Your task to perform on an android device: Open the stopwatch Image 0: 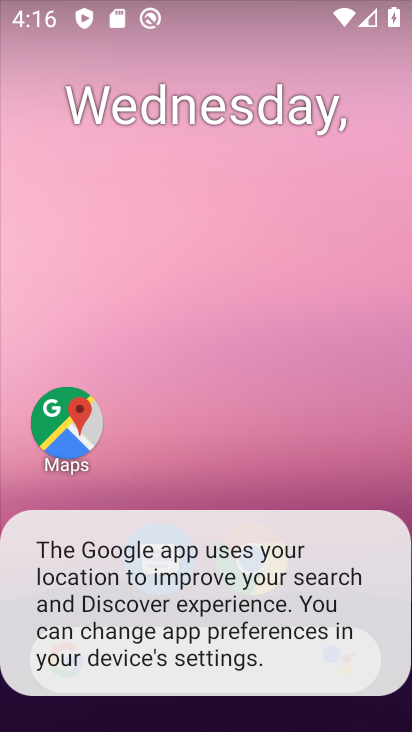
Step 0: click (267, 342)
Your task to perform on an android device: Open the stopwatch Image 1: 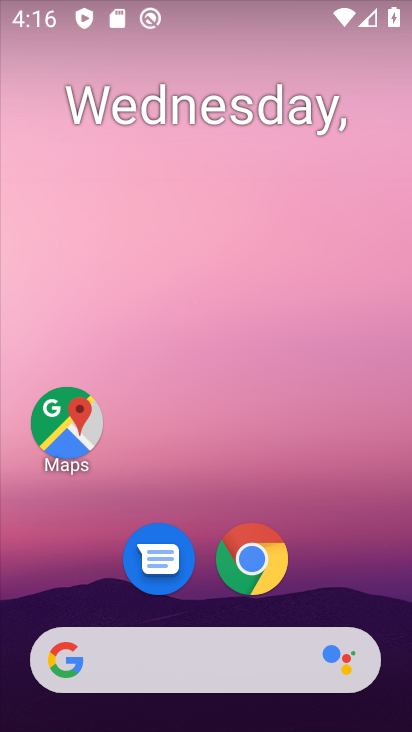
Step 1: drag from (200, 381) to (252, 65)
Your task to perform on an android device: Open the stopwatch Image 2: 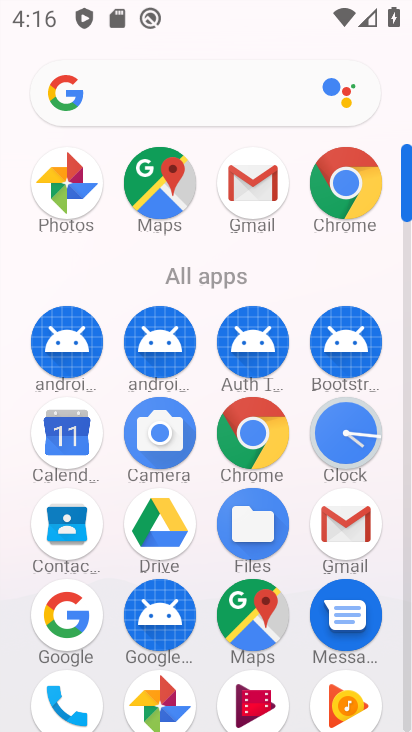
Step 2: click (352, 449)
Your task to perform on an android device: Open the stopwatch Image 3: 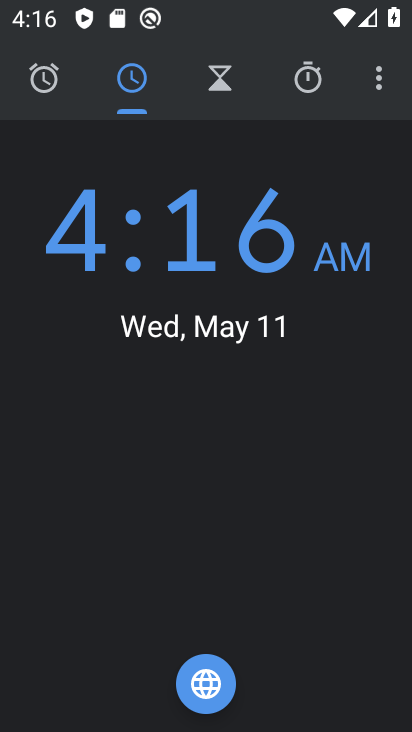
Step 3: click (314, 77)
Your task to perform on an android device: Open the stopwatch Image 4: 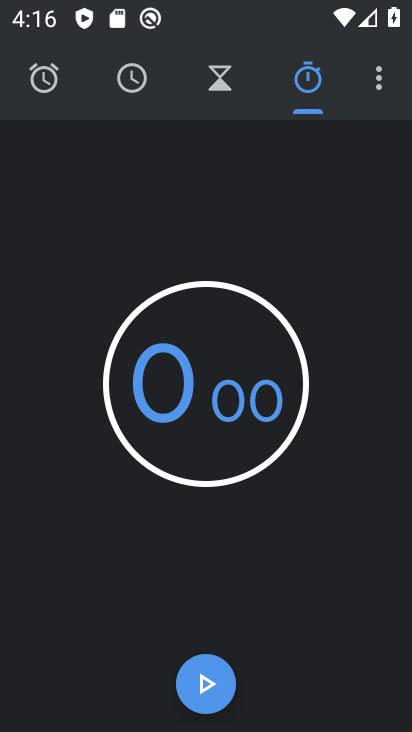
Step 4: task complete